Your task to perform on an android device: delete the emails in spam in the gmail app Image 0: 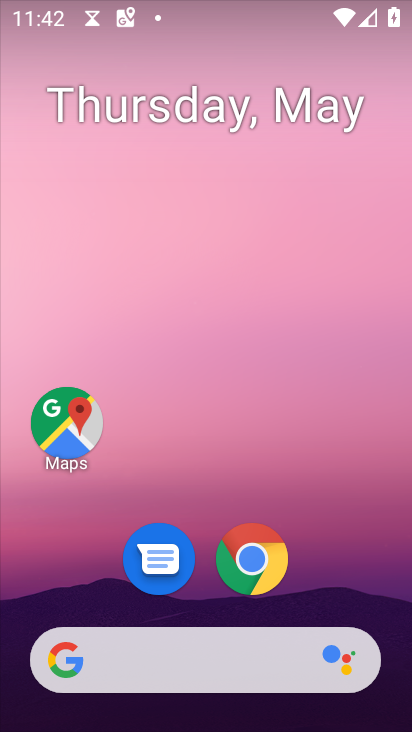
Step 0: drag from (220, 723) to (220, 355)
Your task to perform on an android device: delete the emails in spam in the gmail app Image 1: 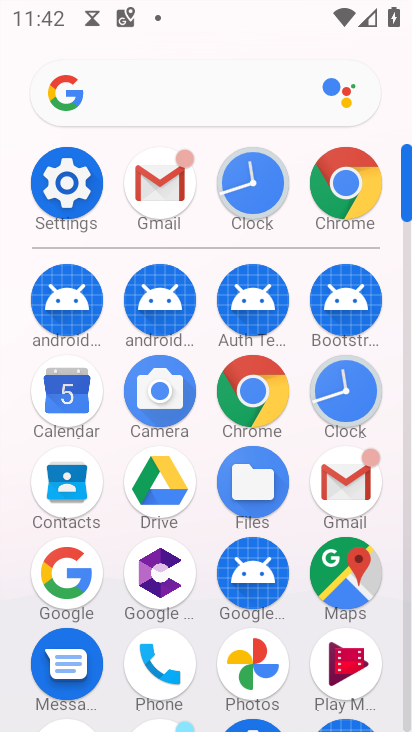
Step 1: click (348, 481)
Your task to perform on an android device: delete the emails in spam in the gmail app Image 2: 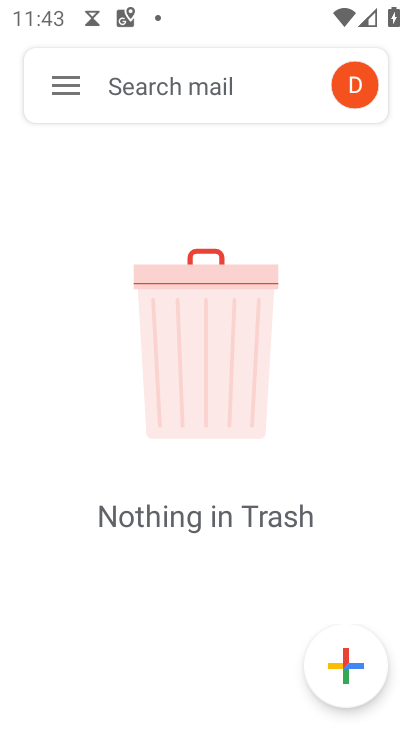
Step 2: click (69, 82)
Your task to perform on an android device: delete the emails in spam in the gmail app Image 3: 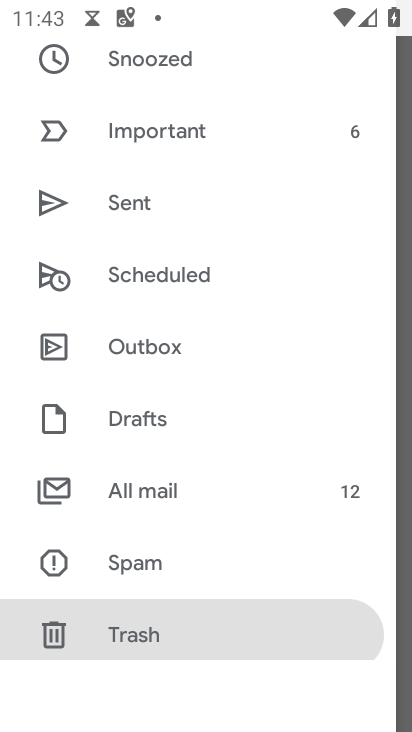
Step 3: click (179, 196)
Your task to perform on an android device: delete the emails in spam in the gmail app Image 4: 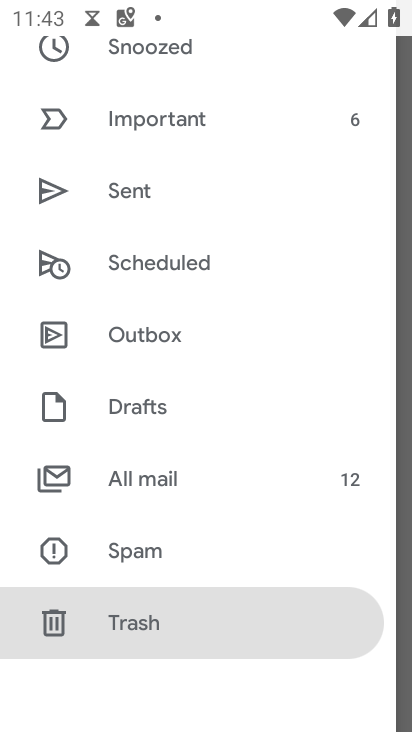
Step 4: click (147, 555)
Your task to perform on an android device: delete the emails in spam in the gmail app Image 5: 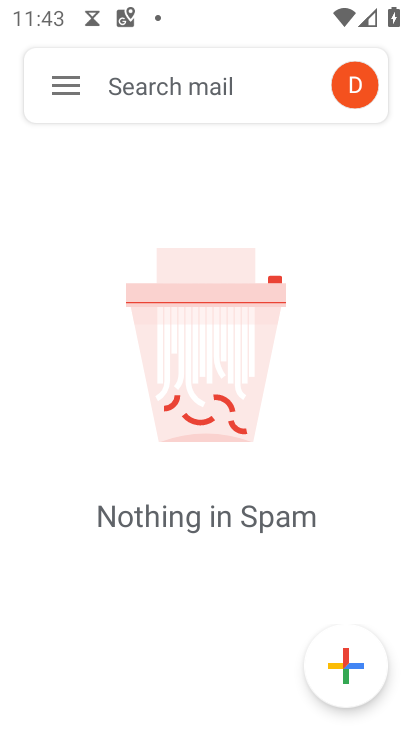
Step 5: task complete